Your task to perform on an android device: Go to settings Image 0: 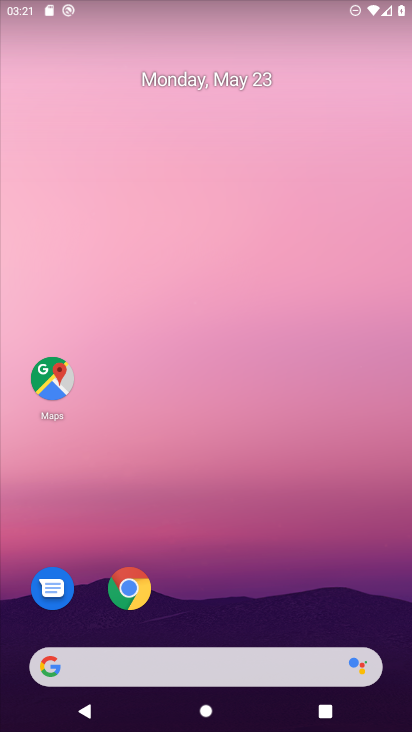
Step 0: drag from (224, 729) to (209, 316)
Your task to perform on an android device: Go to settings Image 1: 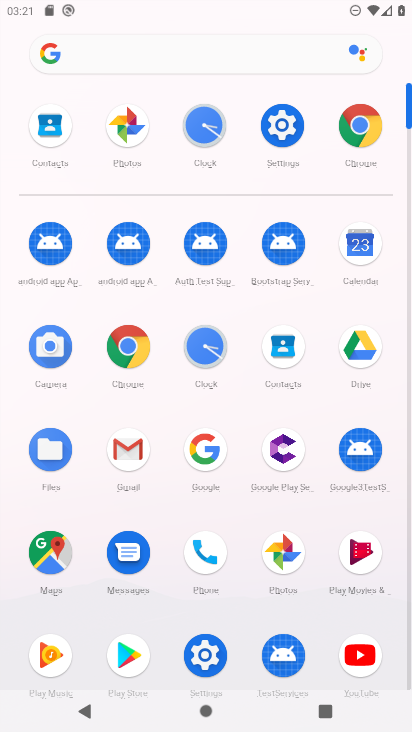
Step 1: click (278, 133)
Your task to perform on an android device: Go to settings Image 2: 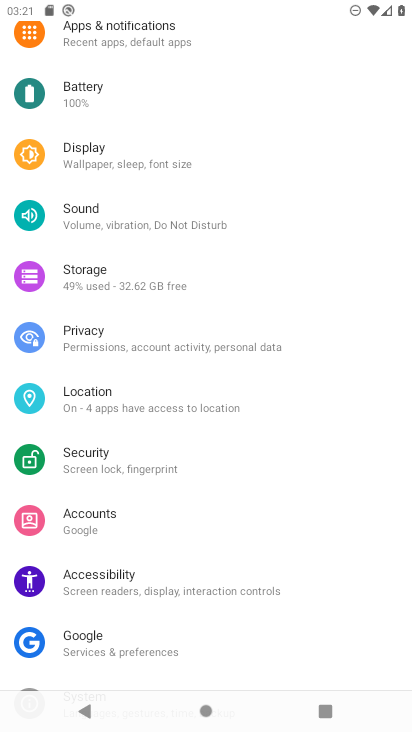
Step 2: click (89, 221)
Your task to perform on an android device: Go to settings Image 3: 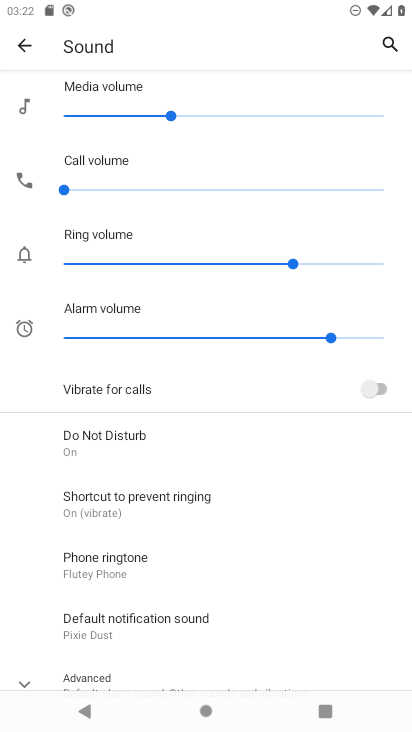
Step 3: task complete